Your task to perform on an android device: Search for alienware aurora on costco.com, select the first entry, add it to the cart, then select checkout. Image 0: 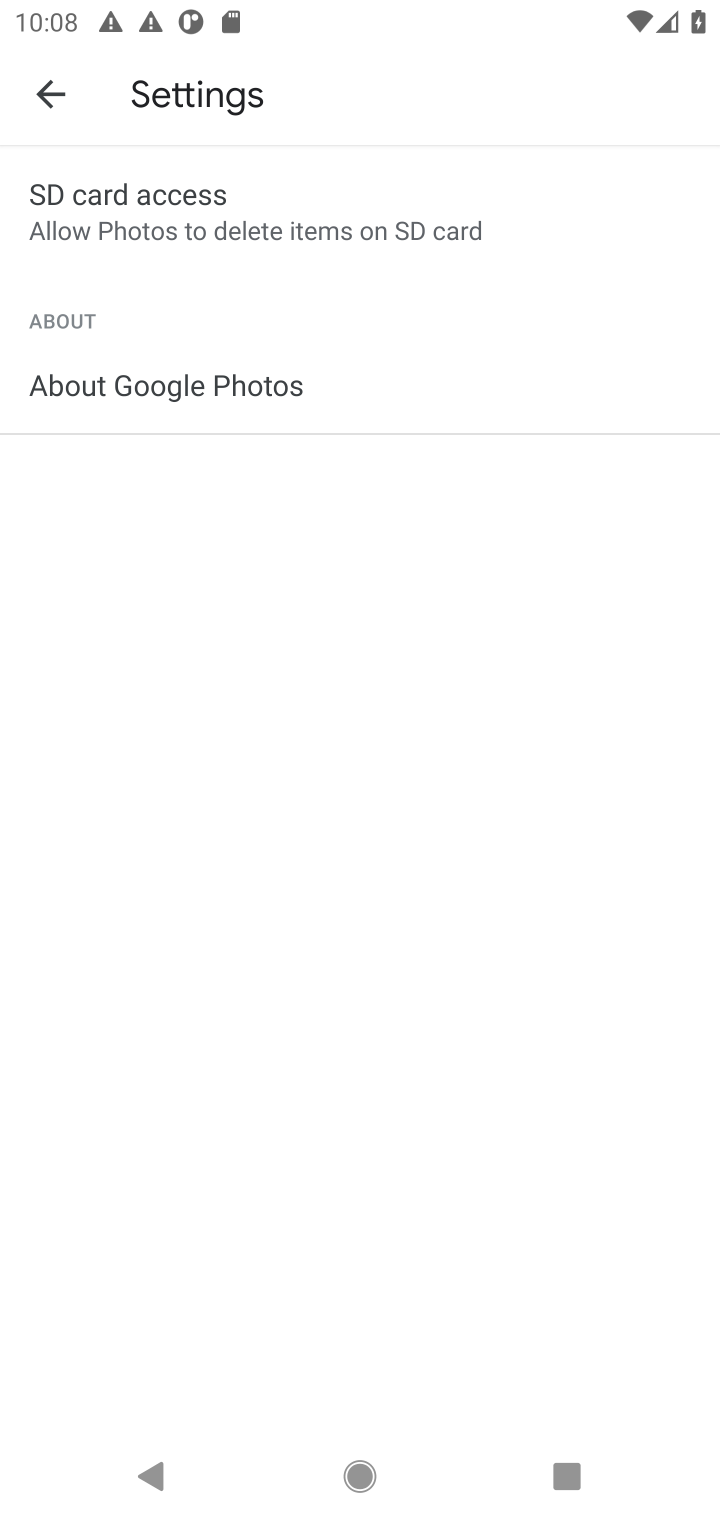
Step 0: press home button
Your task to perform on an android device: Search for alienware aurora on costco.com, select the first entry, add it to the cart, then select checkout. Image 1: 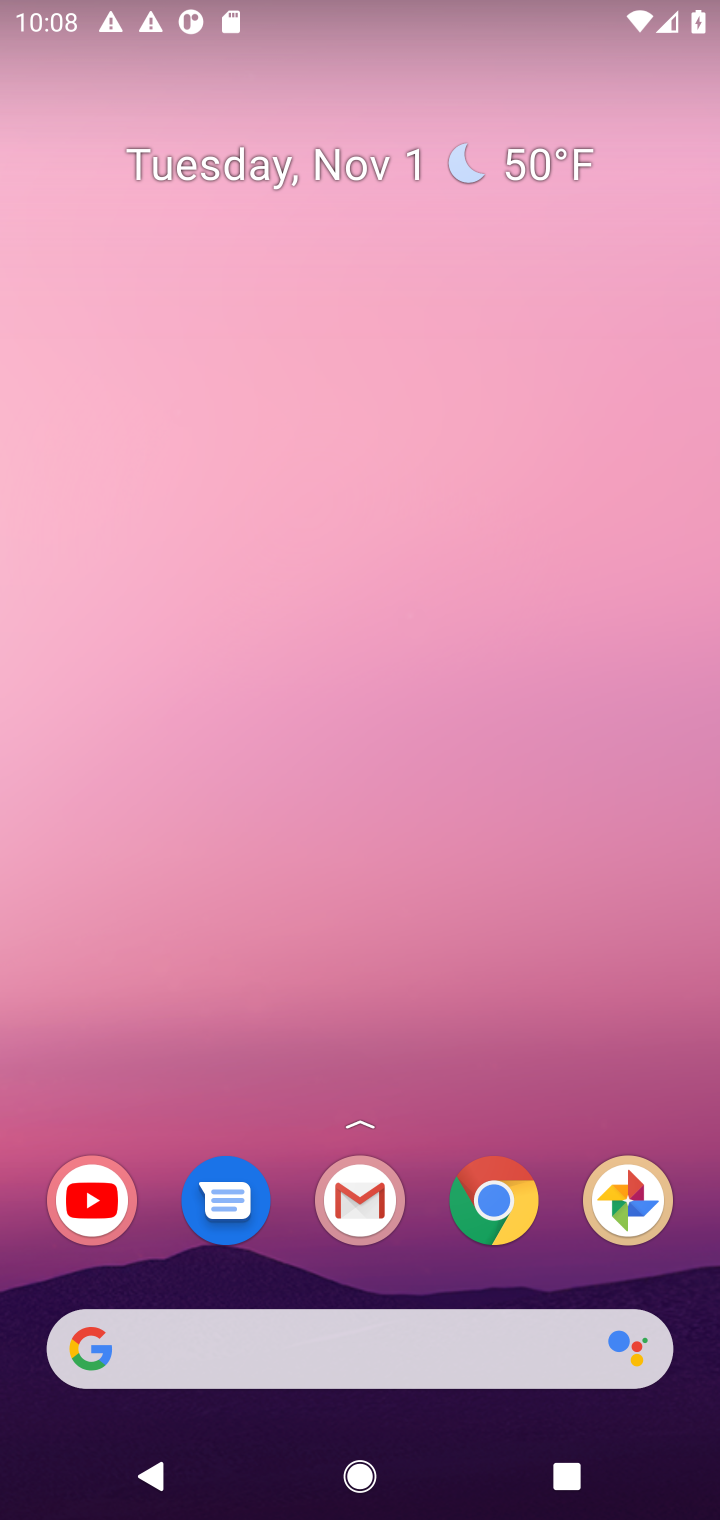
Step 1: click (415, 1353)
Your task to perform on an android device: Search for alienware aurora on costco.com, select the first entry, add it to the cart, then select checkout. Image 2: 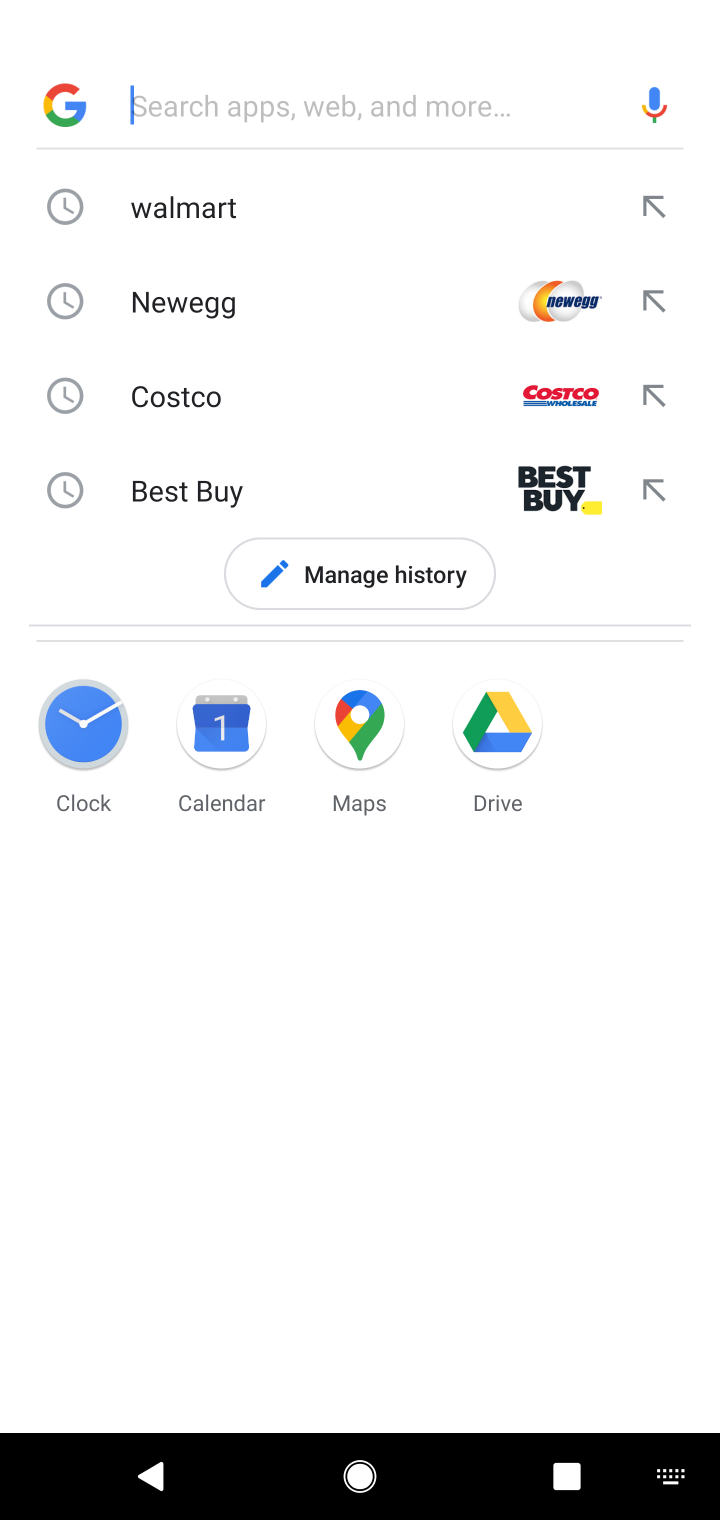
Step 2: type "costco.com"
Your task to perform on an android device: Search for alienware aurora on costco.com, select the first entry, add it to the cart, then select checkout. Image 3: 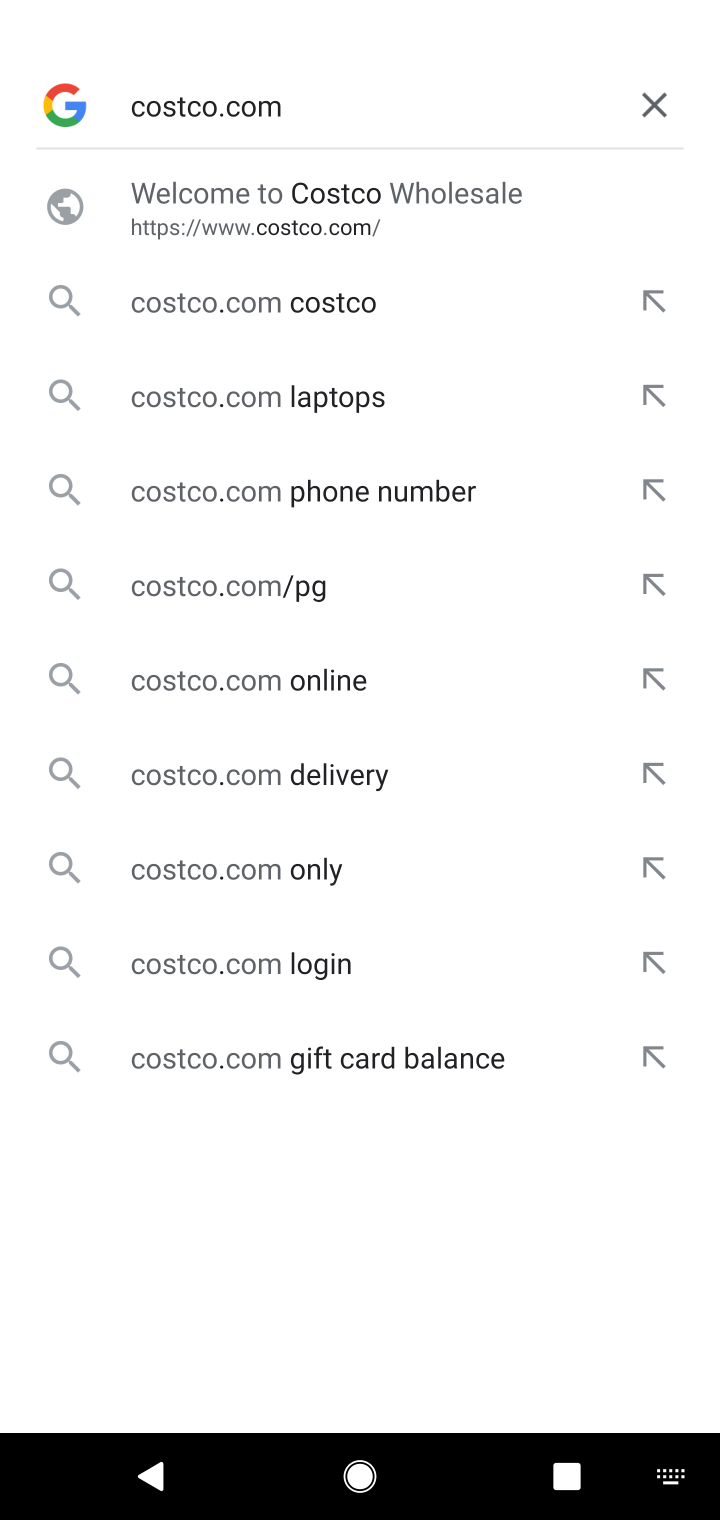
Step 3: type ""
Your task to perform on an android device: Search for alienware aurora on costco.com, select the first entry, add it to the cart, then select checkout. Image 4: 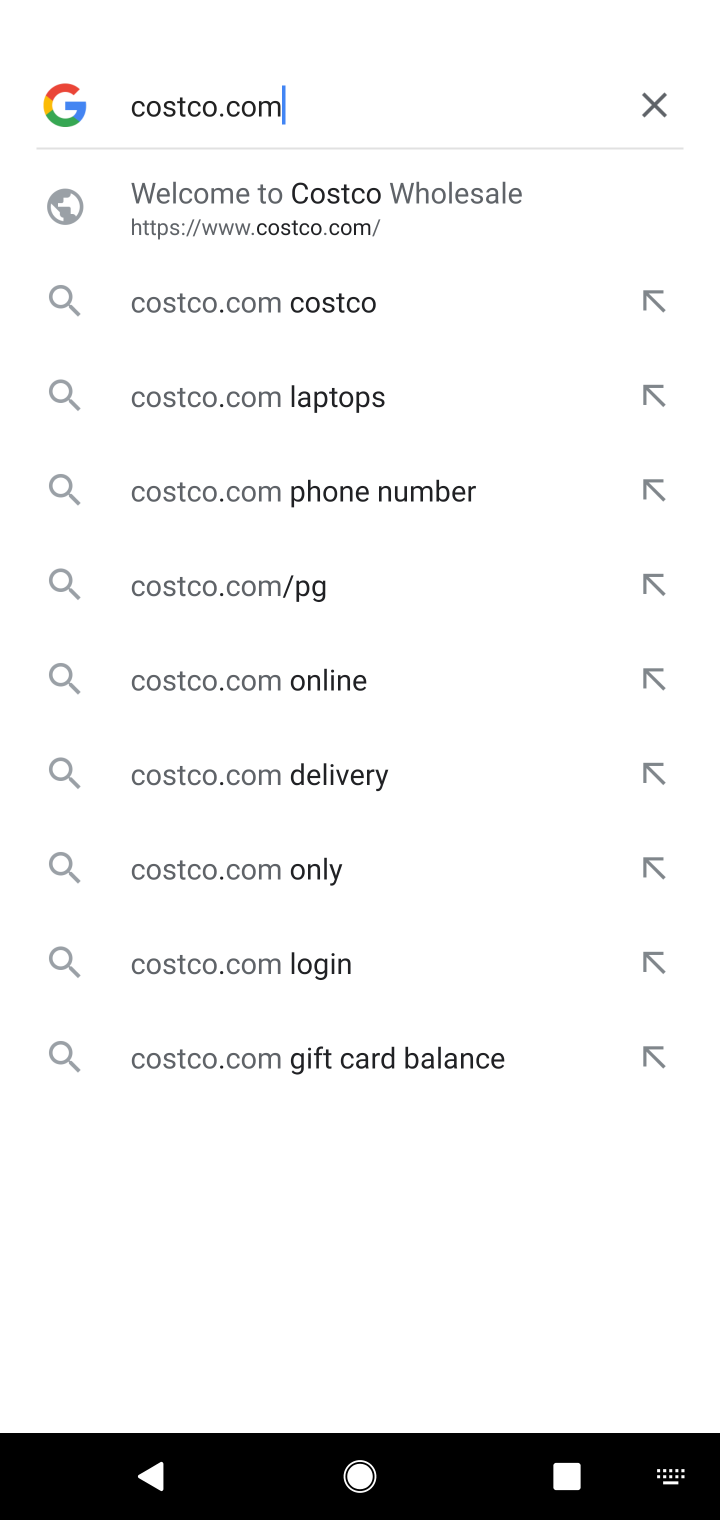
Step 4: click (207, 410)
Your task to perform on an android device: Search for alienware aurora on costco.com, select the first entry, add it to the cart, then select checkout. Image 5: 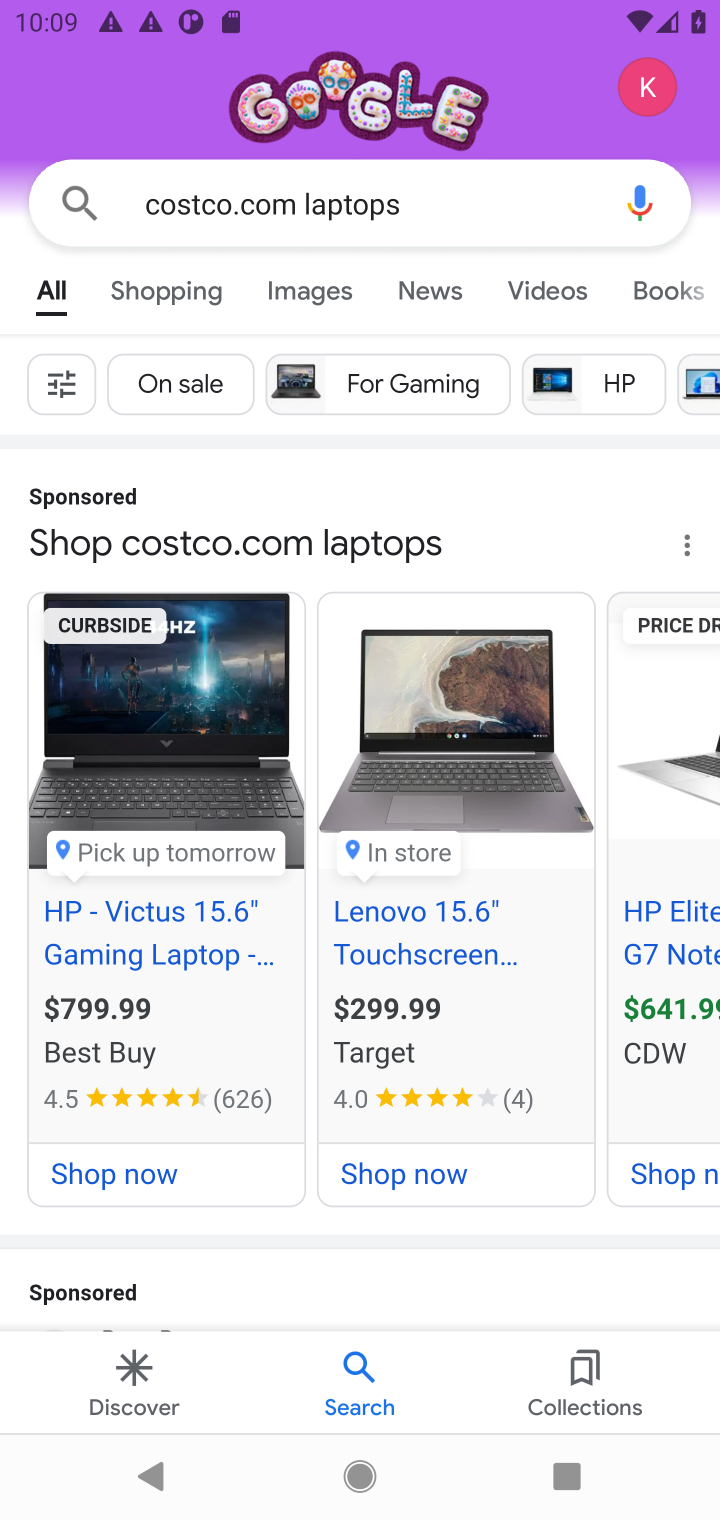
Step 5: drag from (294, 1083) to (355, 430)
Your task to perform on an android device: Search for alienware aurora on costco.com, select the first entry, add it to the cart, then select checkout. Image 6: 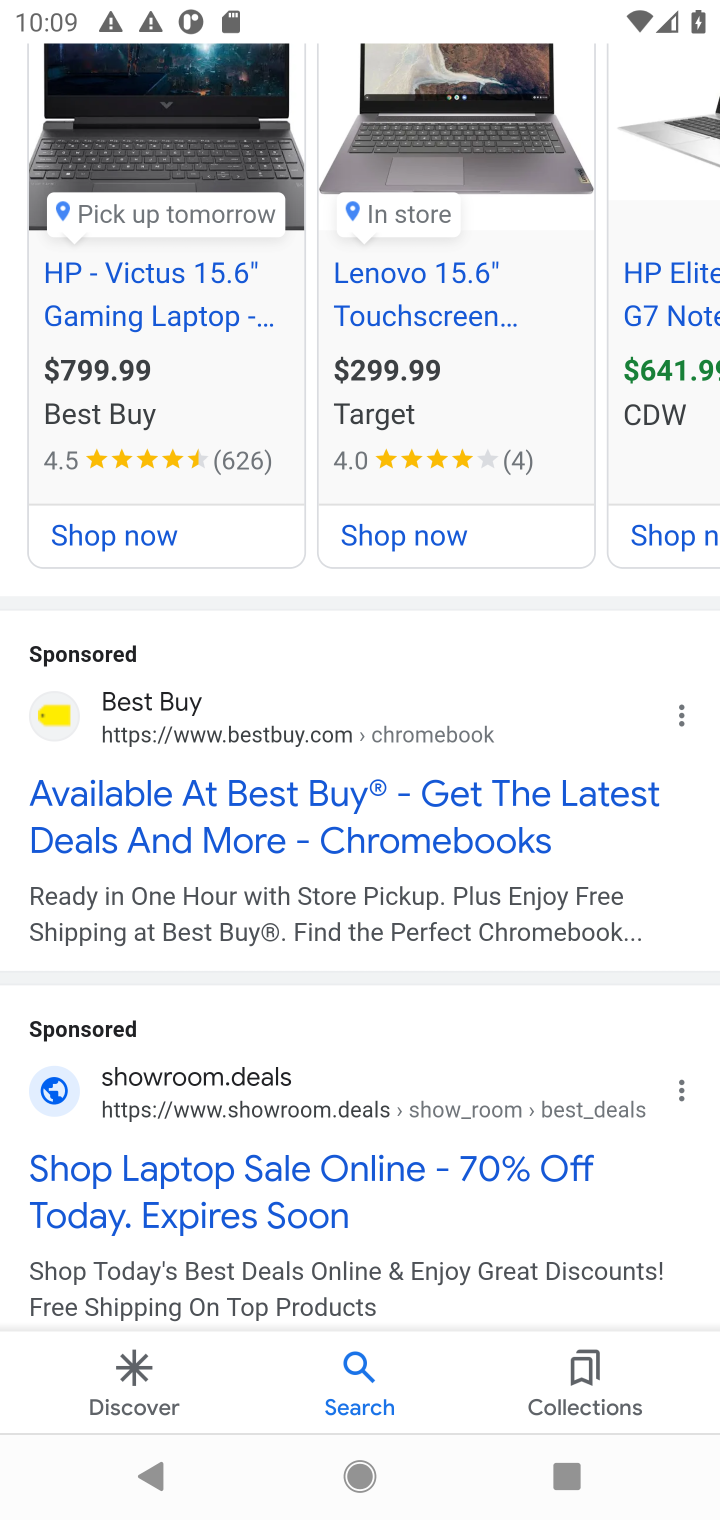
Step 6: drag from (310, 1003) to (428, 516)
Your task to perform on an android device: Search for alienware aurora on costco.com, select the first entry, add it to the cart, then select checkout. Image 7: 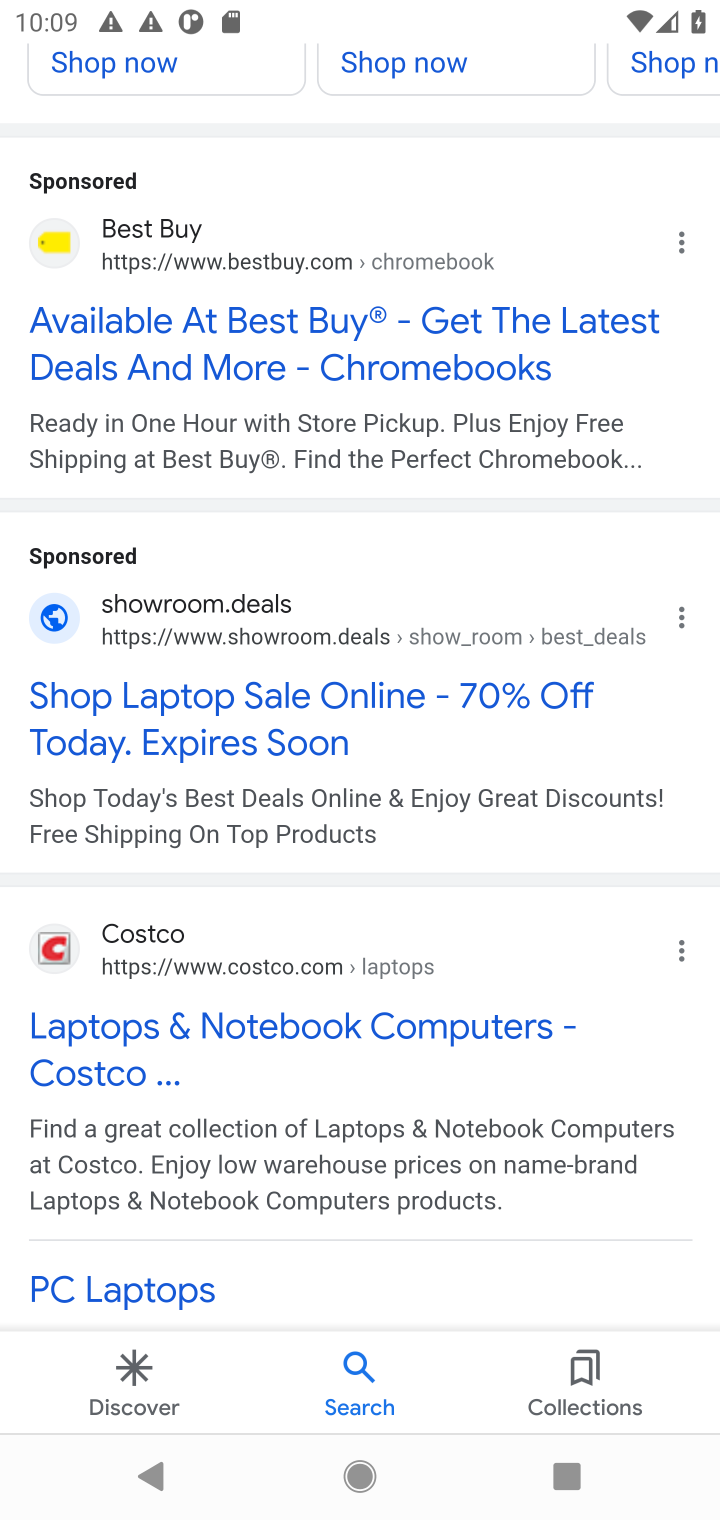
Step 7: click (374, 977)
Your task to perform on an android device: Search for alienware aurora on costco.com, select the first entry, add it to the cart, then select checkout. Image 8: 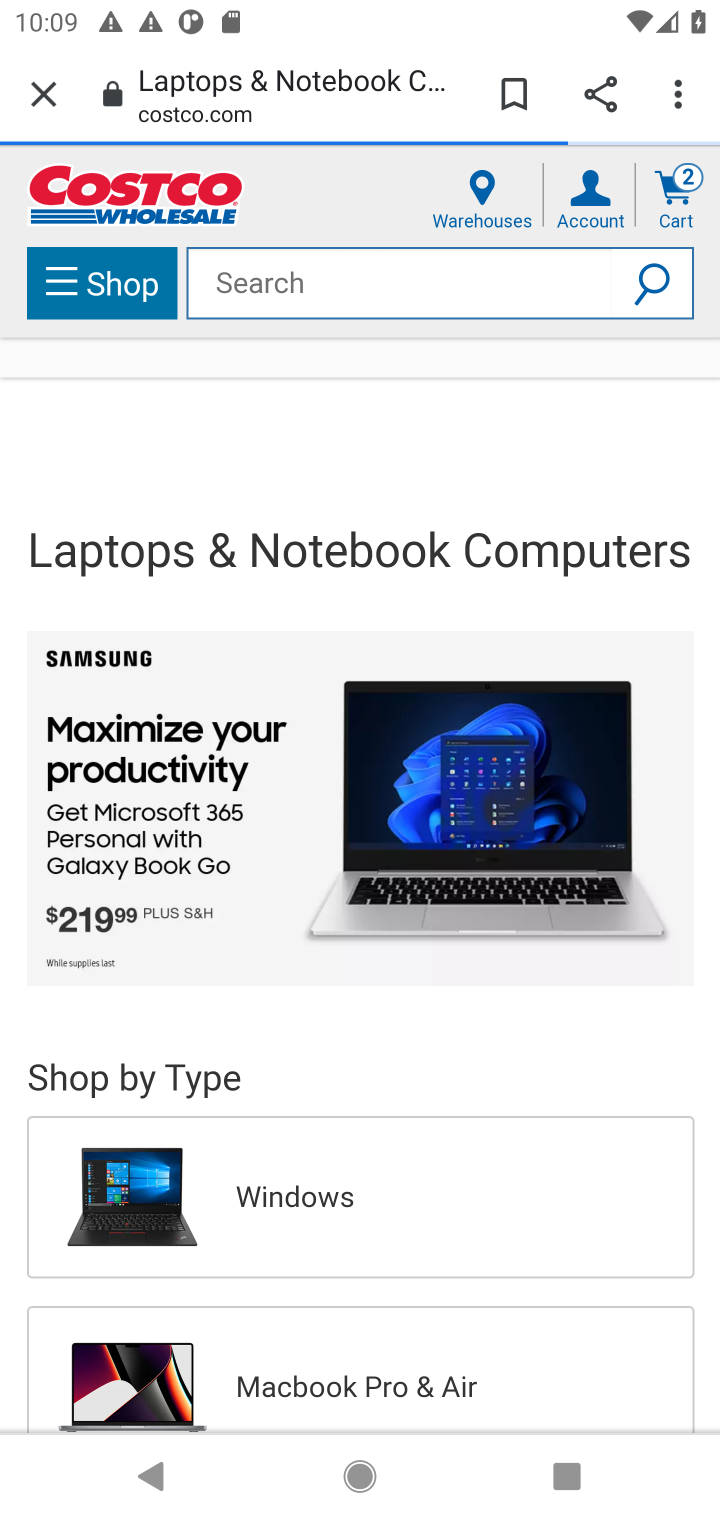
Step 8: drag from (284, 1066) to (264, 535)
Your task to perform on an android device: Search for alienware aurora on costco.com, select the first entry, add it to the cart, then select checkout. Image 9: 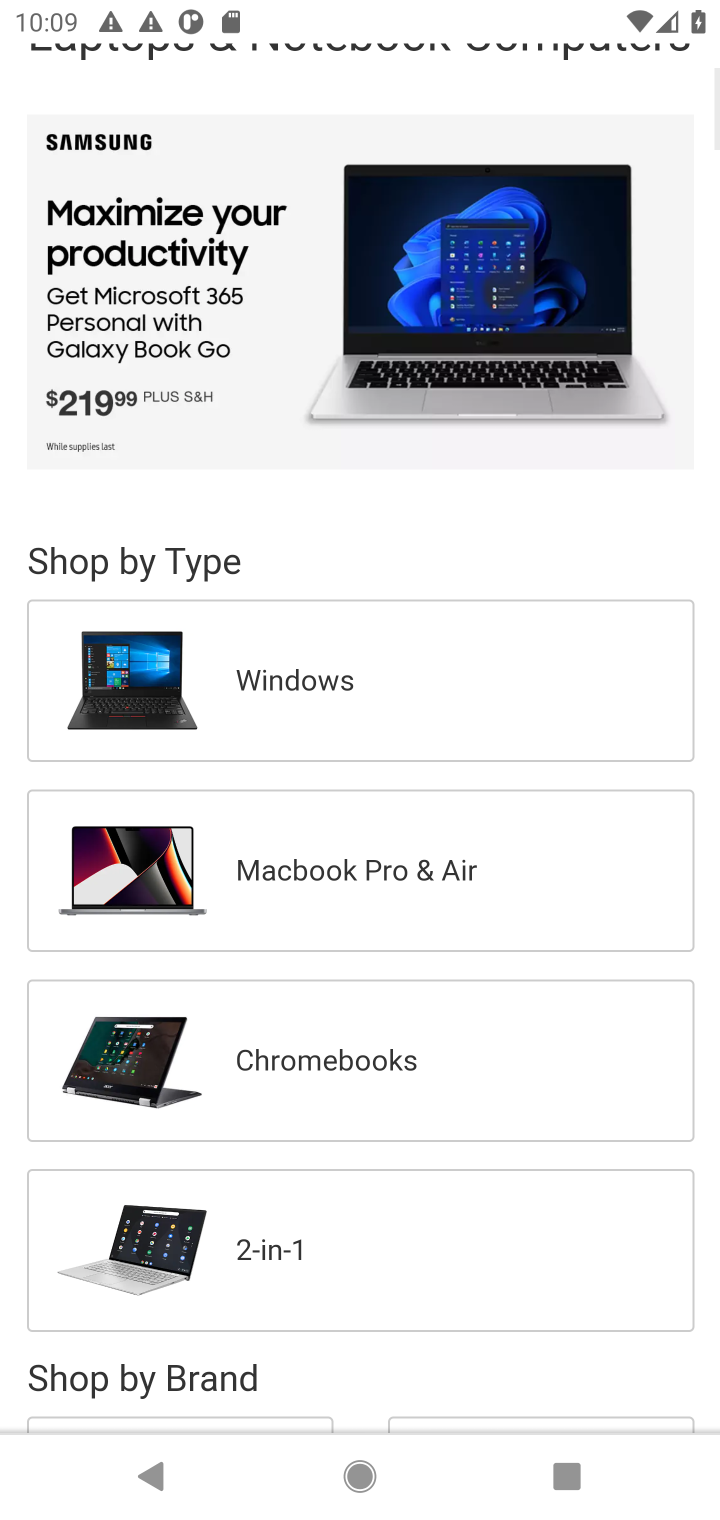
Step 9: drag from (315, 1135) to (357, 360)
Your task to perform on an android device: Search for alienware aurora on costco.com, select the first entry, add it to the cart, then select checkout. Image 10: 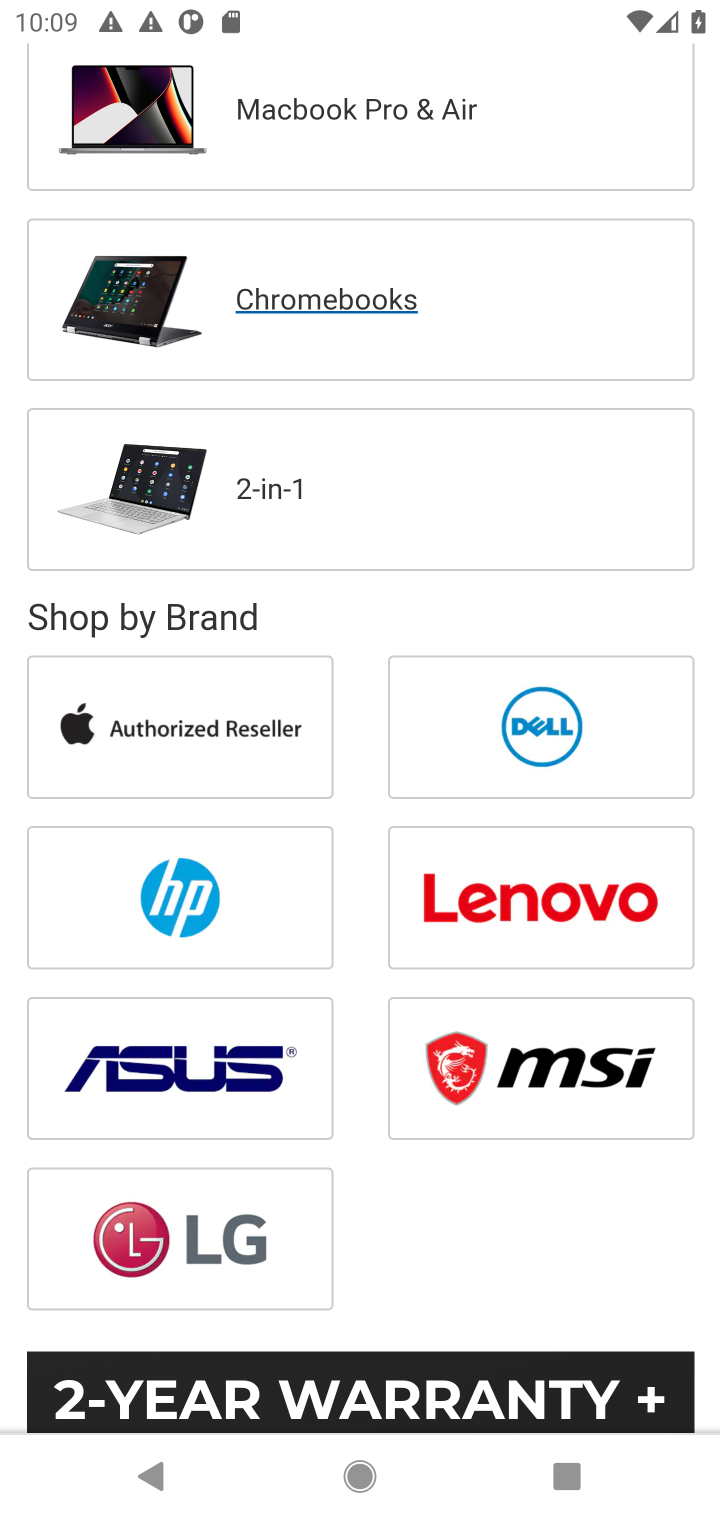
Step 10: drag from (416, 1108) to (332, 282)
Your task to perform on an android device: Search for alienware aurora on costco.com, select the first entry, add it to the cart, then select checkout. Image 11: 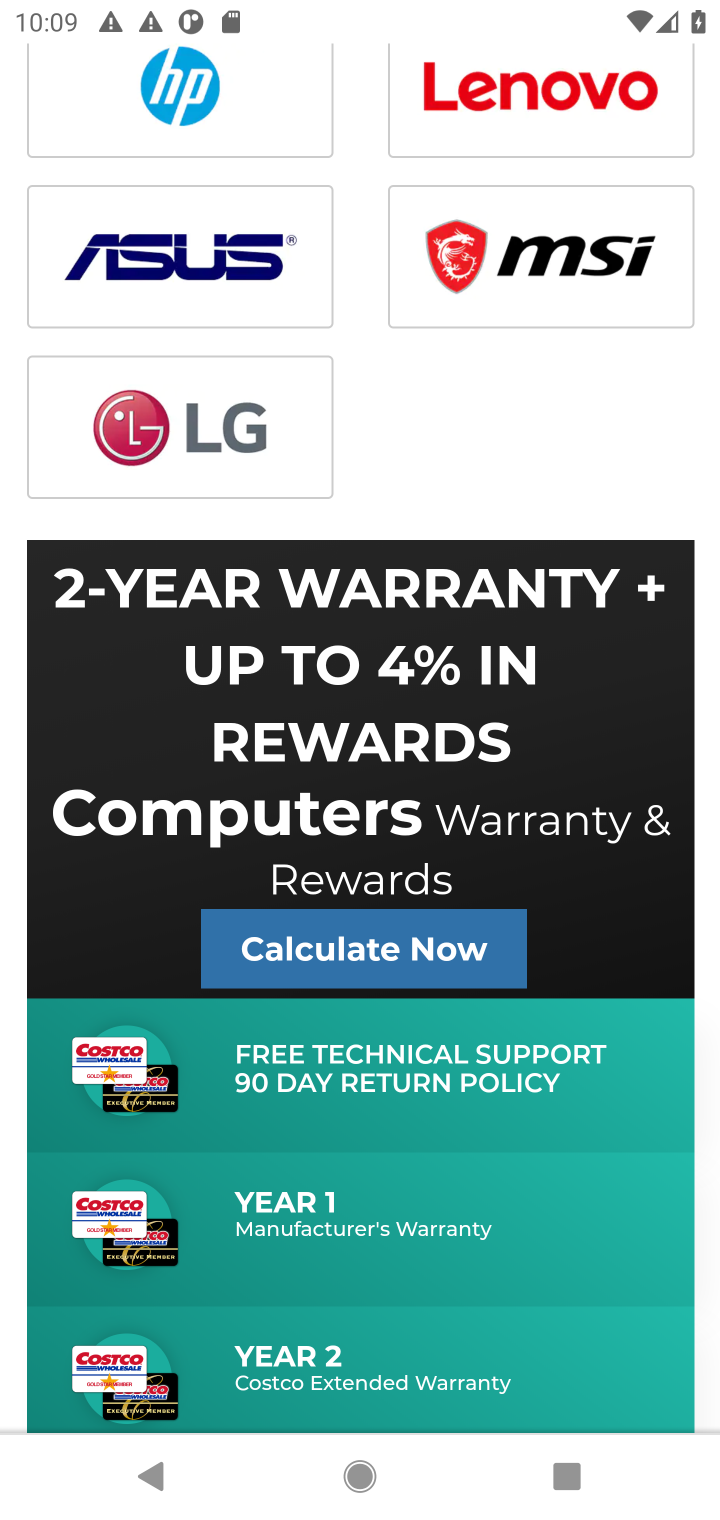
Step 11: drag from (386, 471) to (381, 308)
Your task to perform on an android device: Search for alienware aurora on costco.com, select the first entry, add it to the cart, then select checkout. Image 12: 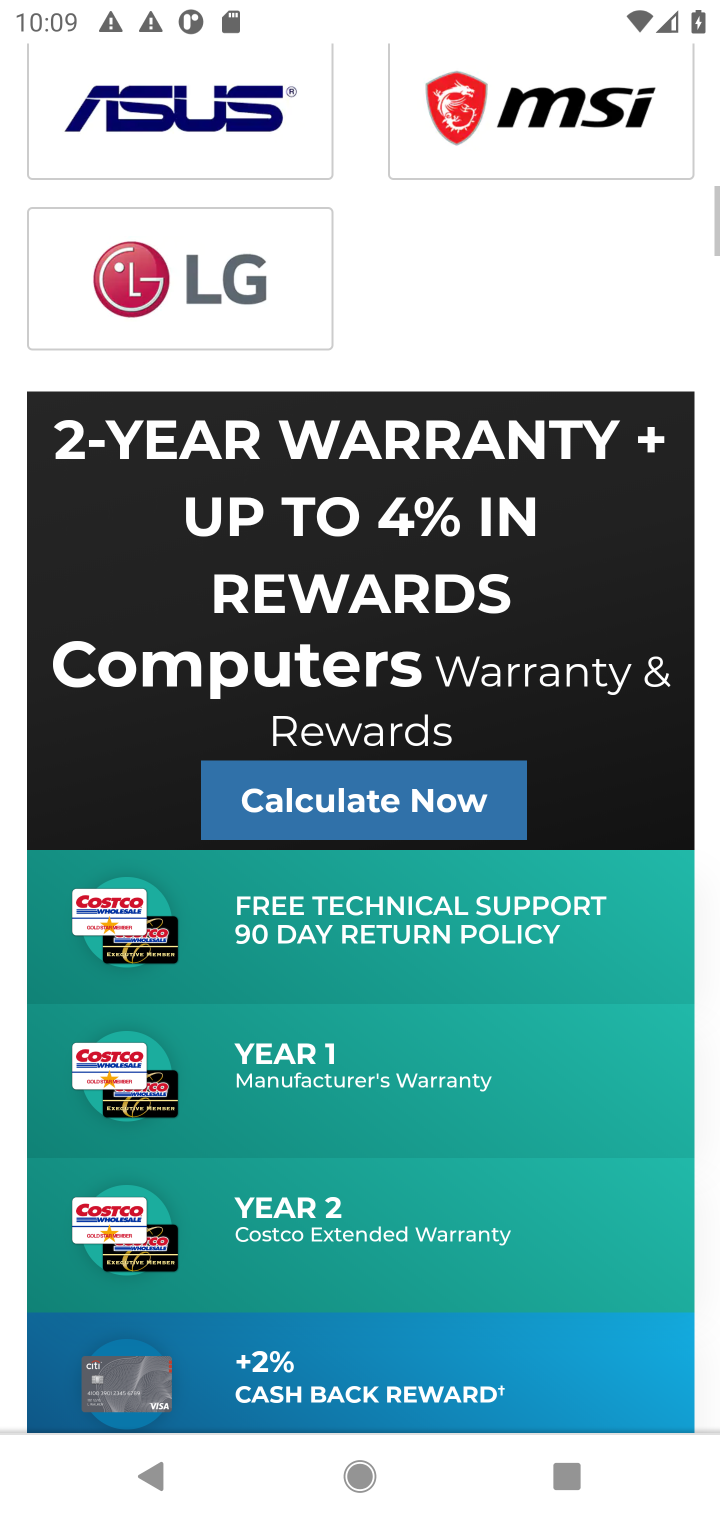
Step 12: drag from (472, 312) to (403, 1102)
Your task to perform on an android device: Search for alienware aurora on costco.com, select the first entry, add it to the cart, then select checkout. Image 13: 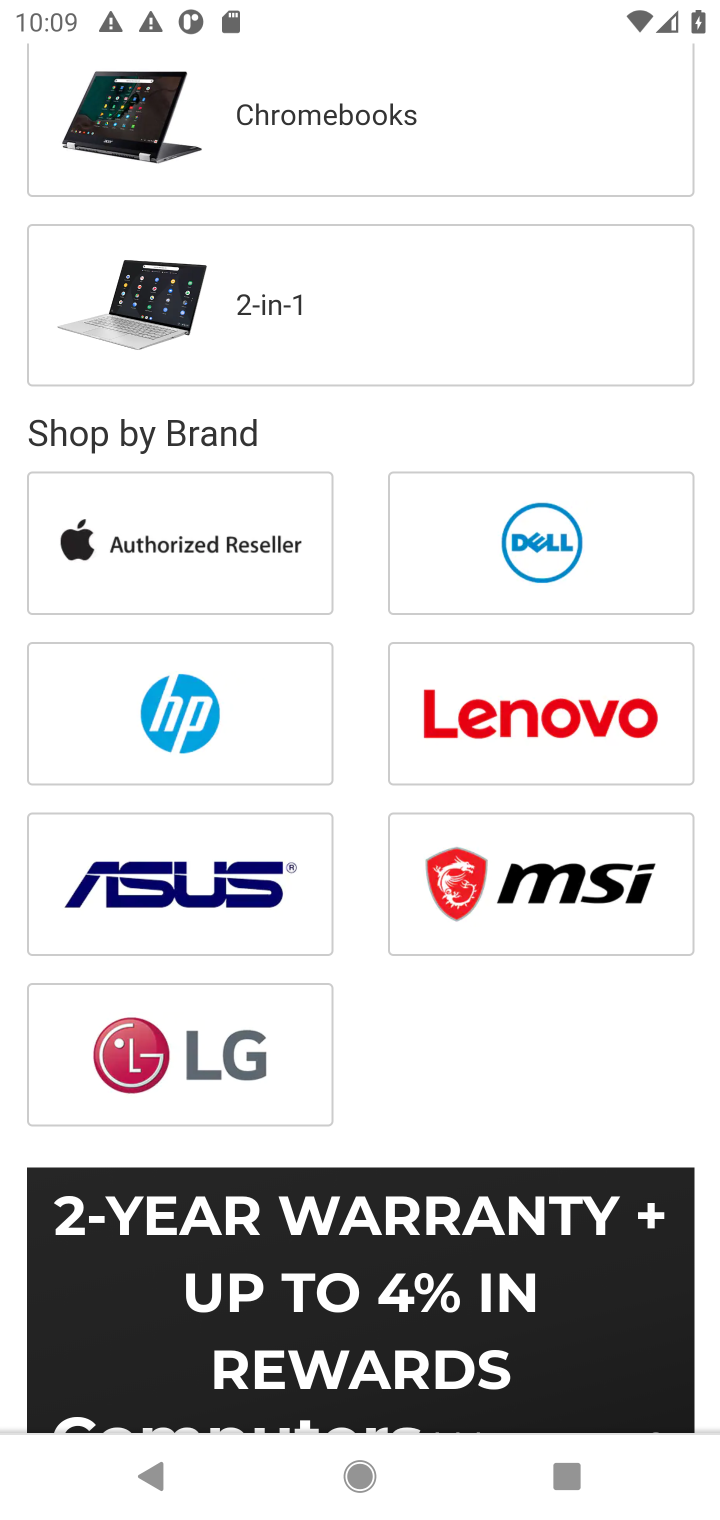
Step 13: drag from (367, 831) to (344, 1151)
Your task to perform on an android device: Search for alienware aurora on costco.com, select the first entry, add it to the cart, then select checkout. Image 14: 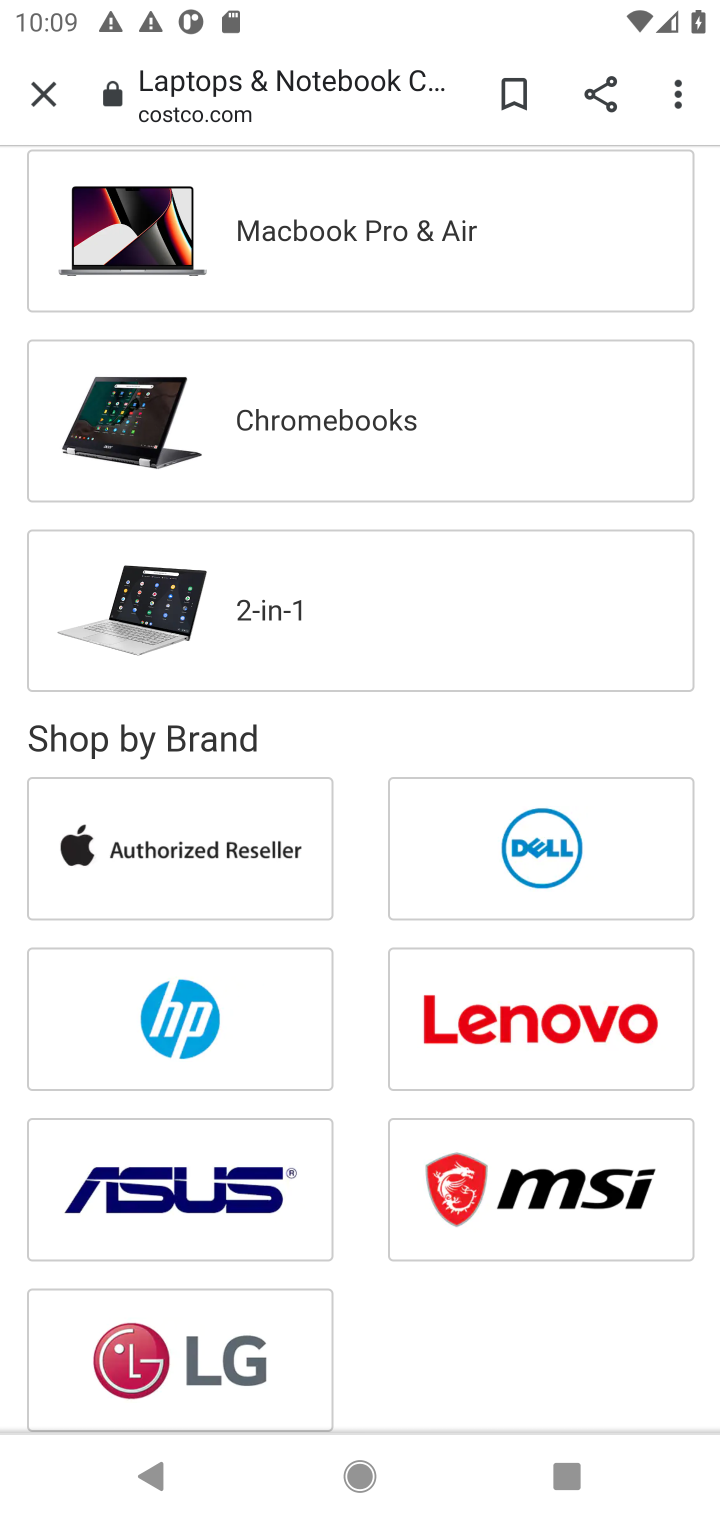
Step 14: drag from (407, 449) to (414, 1124)
Your task to perform on an android device: Search for alienware aurora on costco.com, select the first entry, add it to the cart, then select checkout. Image 15: 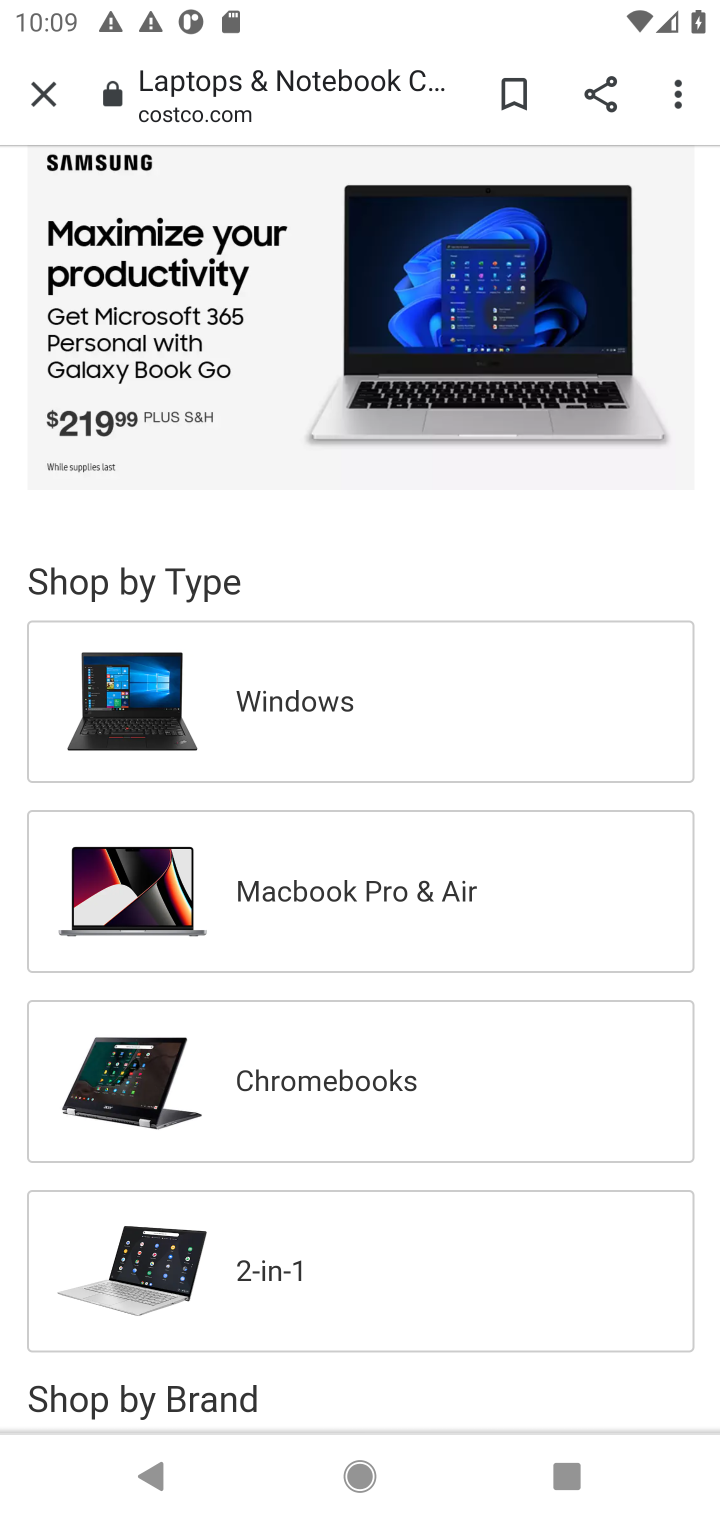
Step 15: drag from (416, 598) to (479, 1234)
Your task to perform on an android device: Search for alienware aurora on costco.com, select the first entry, add it to the cart, then select checkout. Image 16: 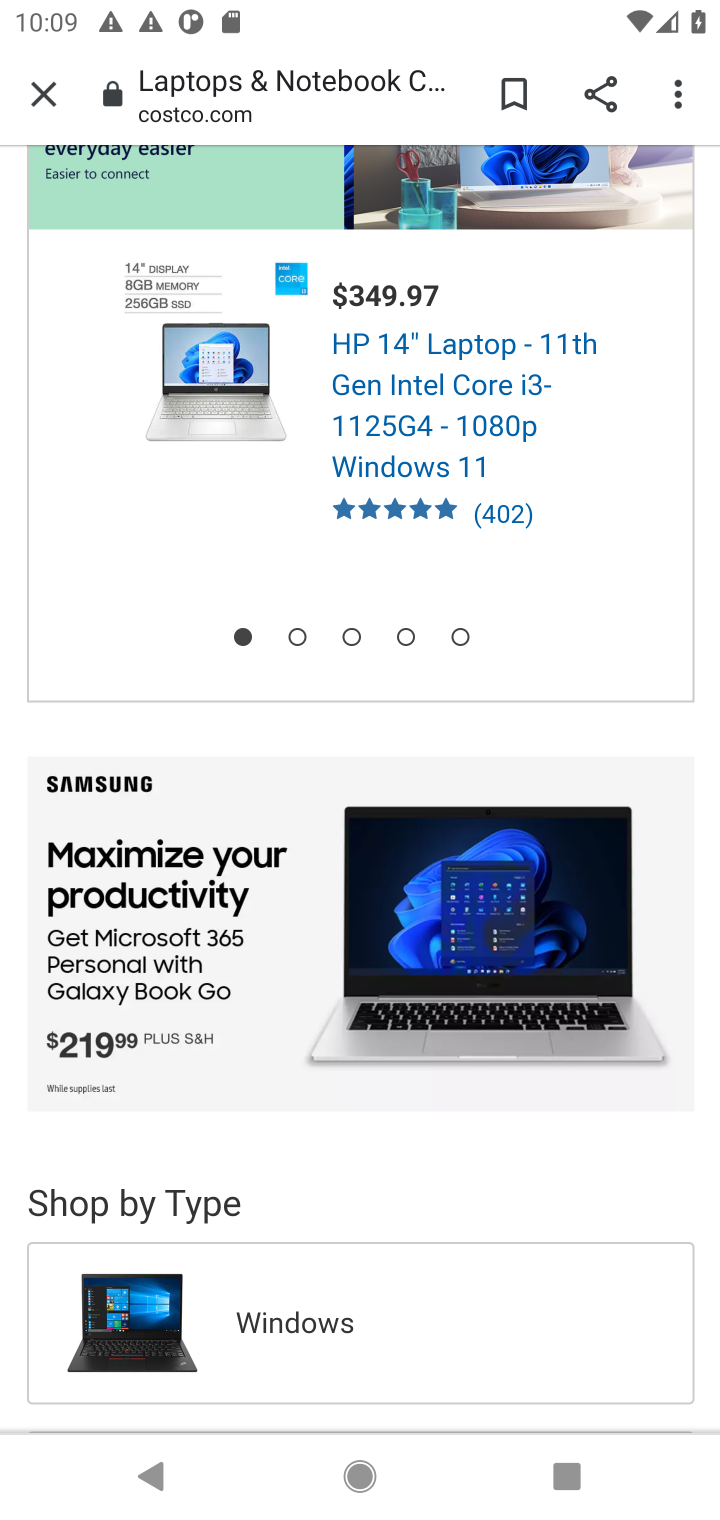
Step 16: drag from (395, 1055) to (390, 1336)
Your task to perform on an android device: Search for alienware aurora on costco.com, select the first entry, add it to the cart, then select checkout. Image 17: 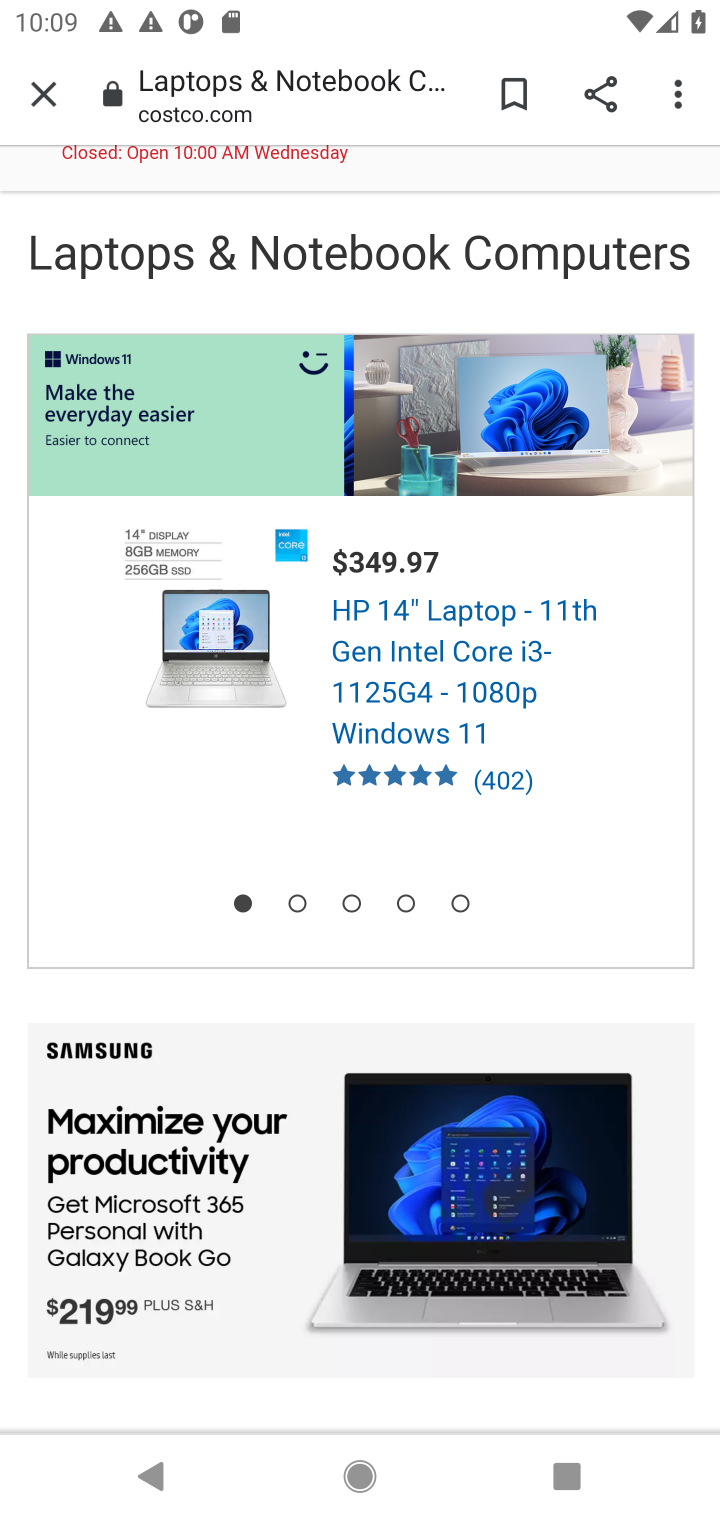
Step 17: drag from (378, 730) to (395, 1309)
Your task to perform on an android device: Search for alienware aurora on costco.com, select the first entry, add it to the cart, then select checkout. Image 18: 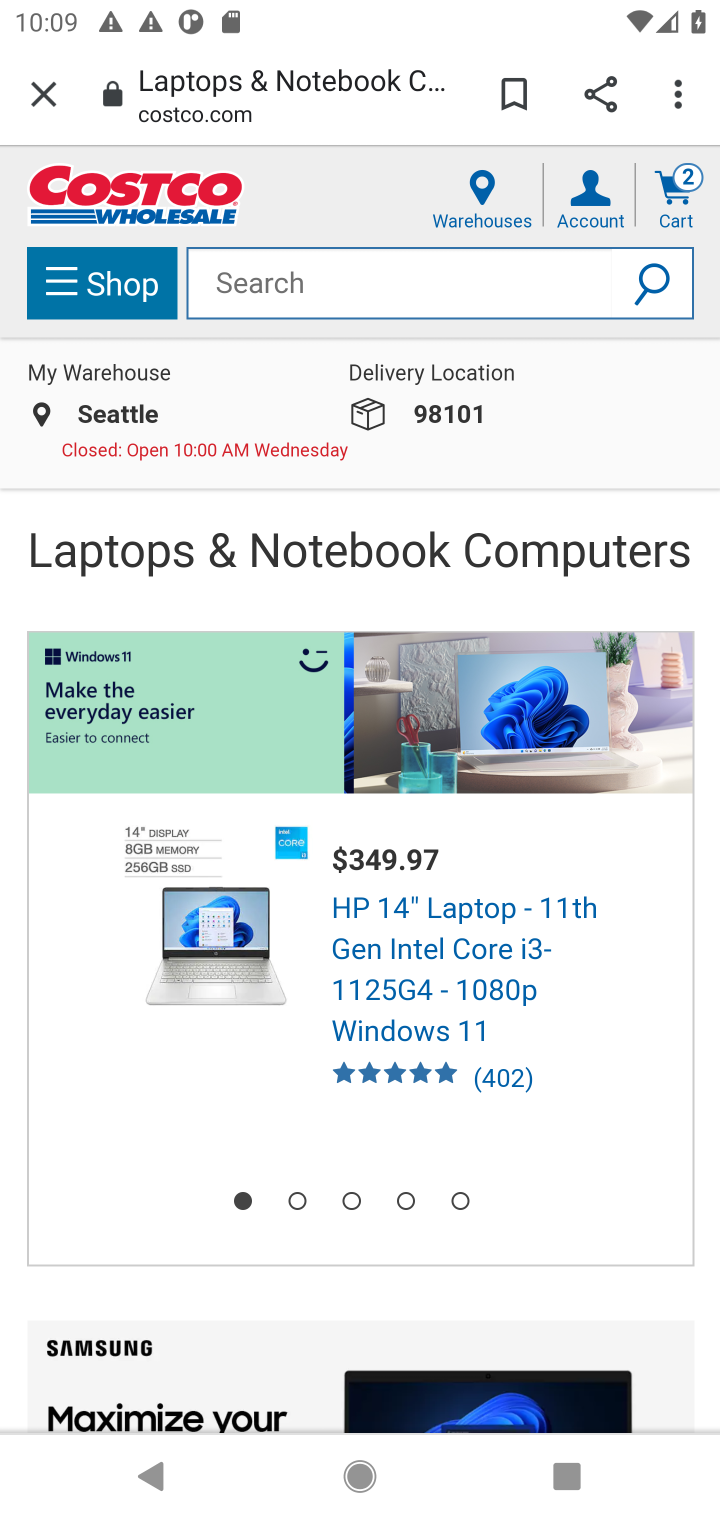
Step 18: click (338, 288)
Your task to perform on an android device: Search for alienware aurora on costco.com, select the first entry, add it to the cart, then select checkout. Image 19: 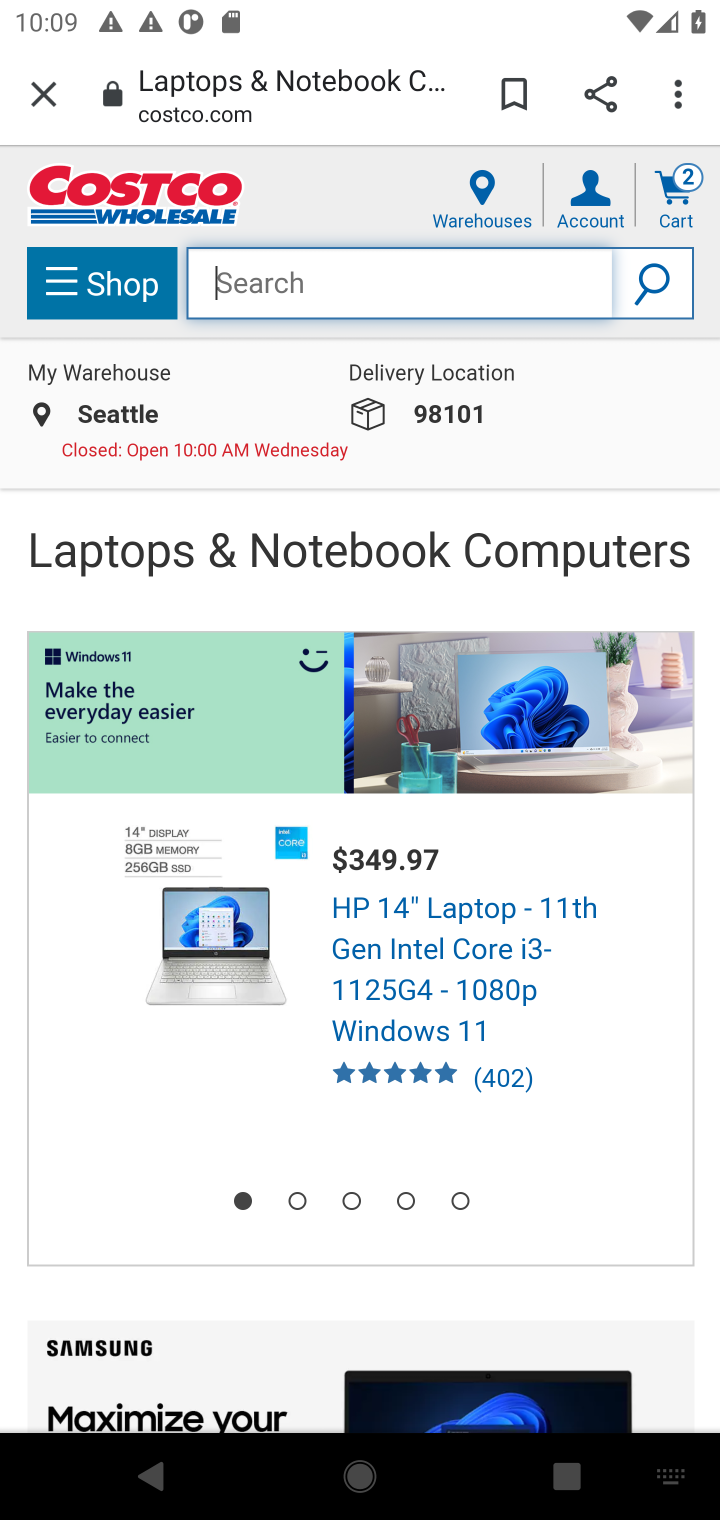
Step 19: type "alienware aurora"
Your task to perform on an android device: Search for alienware aurora on costco.com, select the first entry, add it to the cart, then select checkout. Image 20: 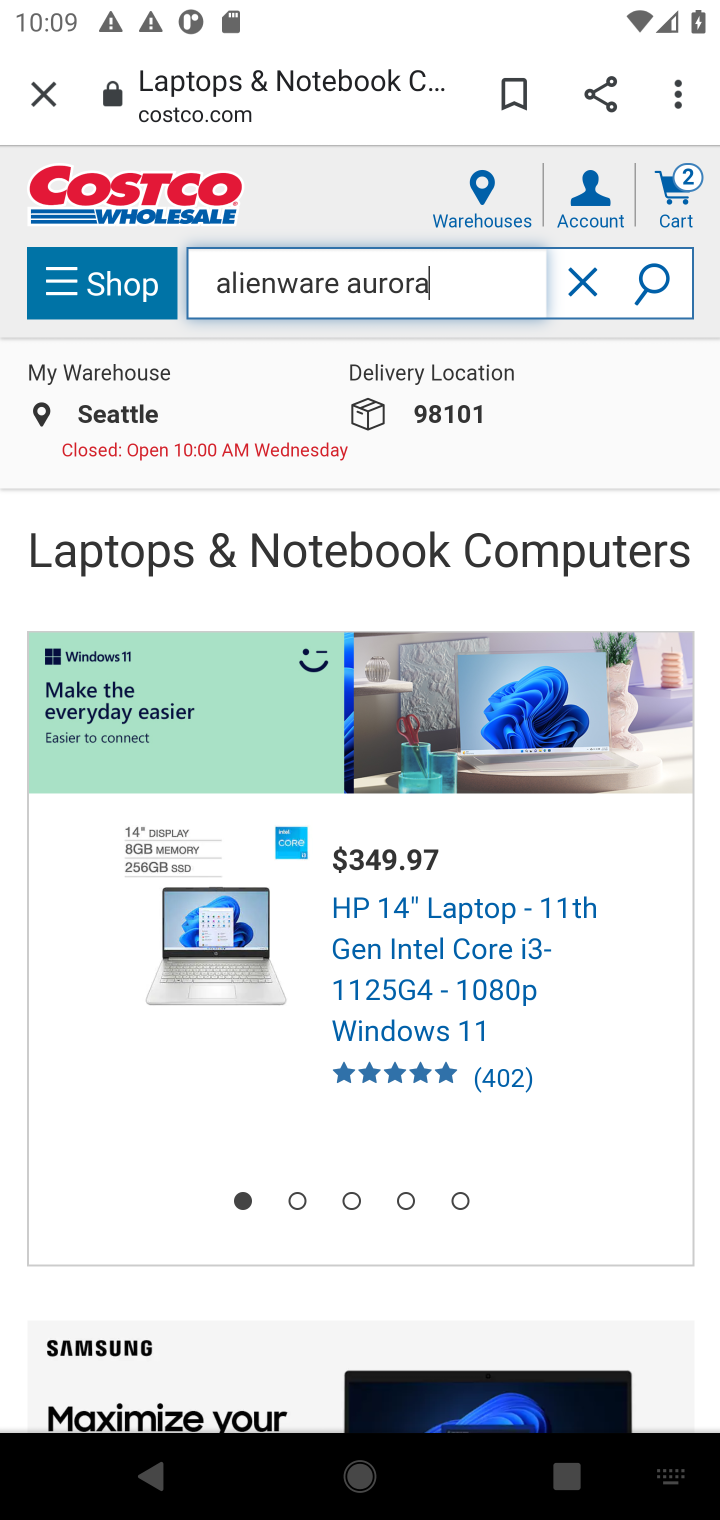
Step 20: type ""
Your task to perform on an android device: Search for alienware aurora on costco.com, select the first entry, add it to the cart, then select checkout. Image 21: 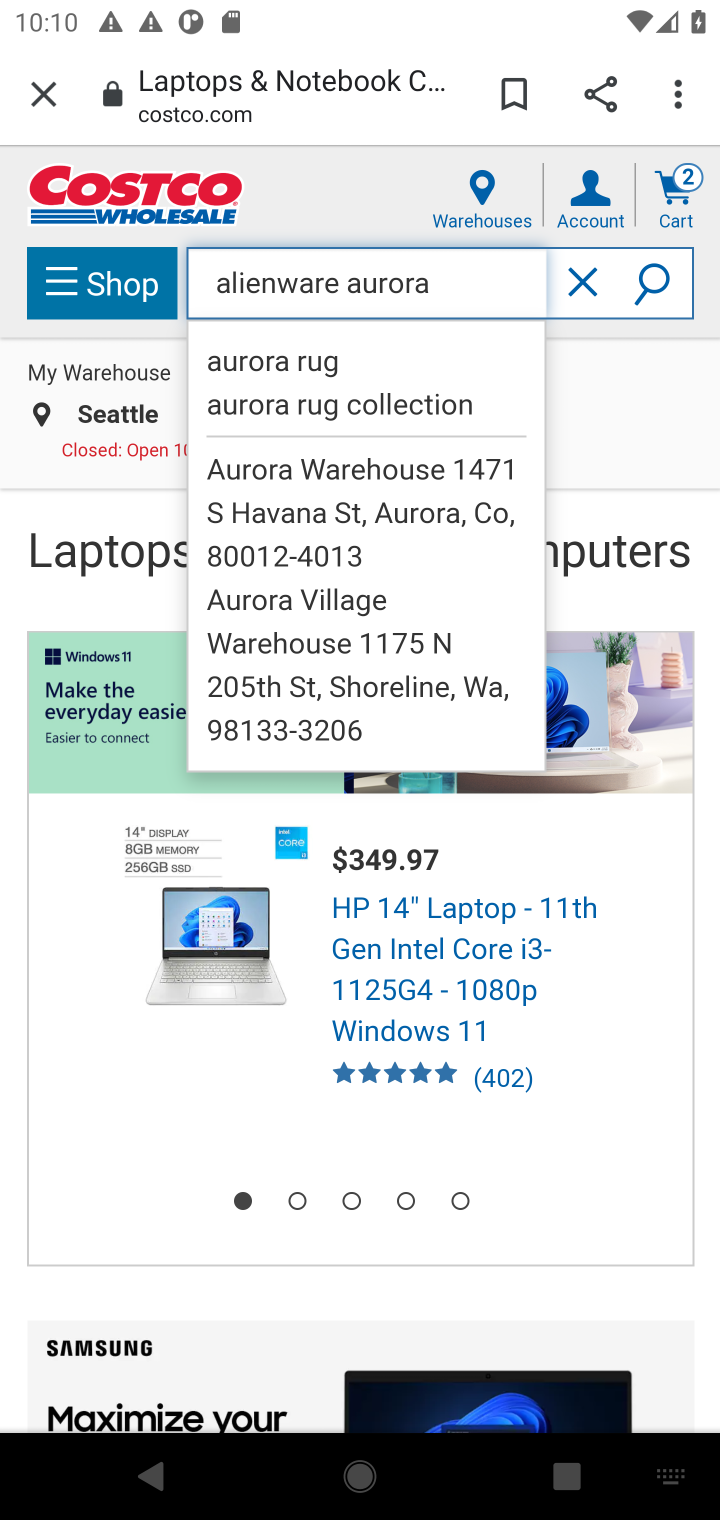
Step 21: click (632, 277)
Your task to perform on an android device: Search for alienware aurora on costco.com, select the first entry, add it to the cart, then select checkout. Image 22: 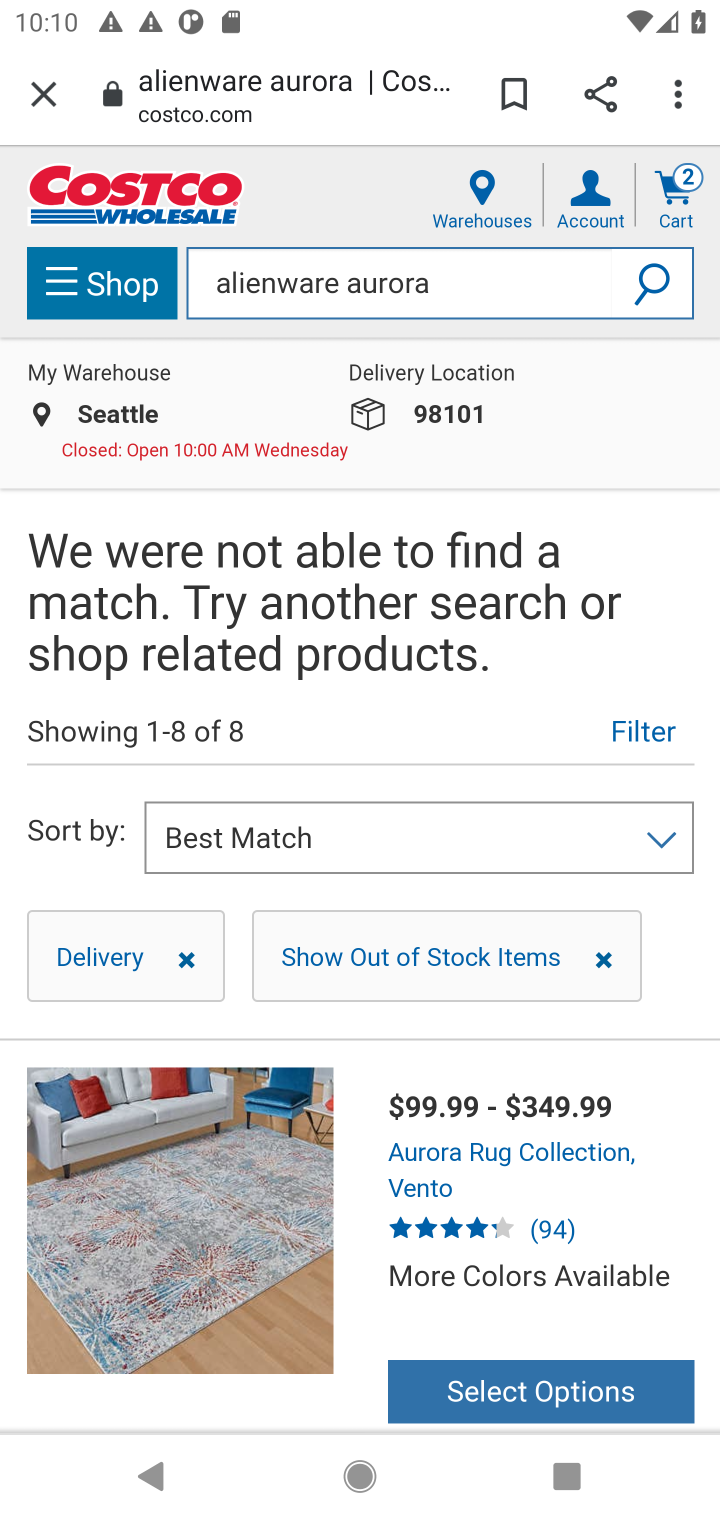
Step 22: click (462, 547)
Your task to perform on an android device: Search for alienware aurora on costco.com, select the first entry, add it to the cart, then select checkout. Image 23: 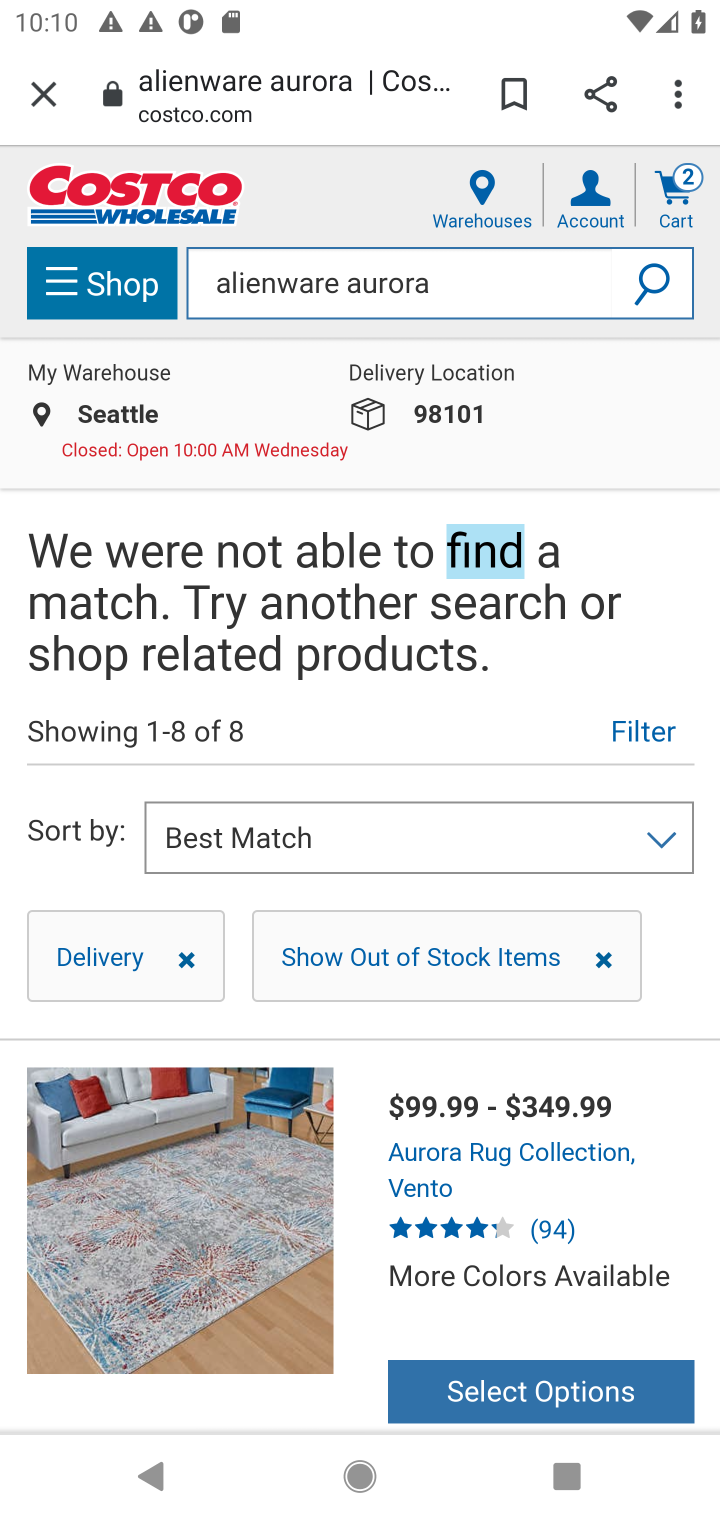
Step 23: task complete